Your task to perform on an android device: Toggle the flashlight Image 0: 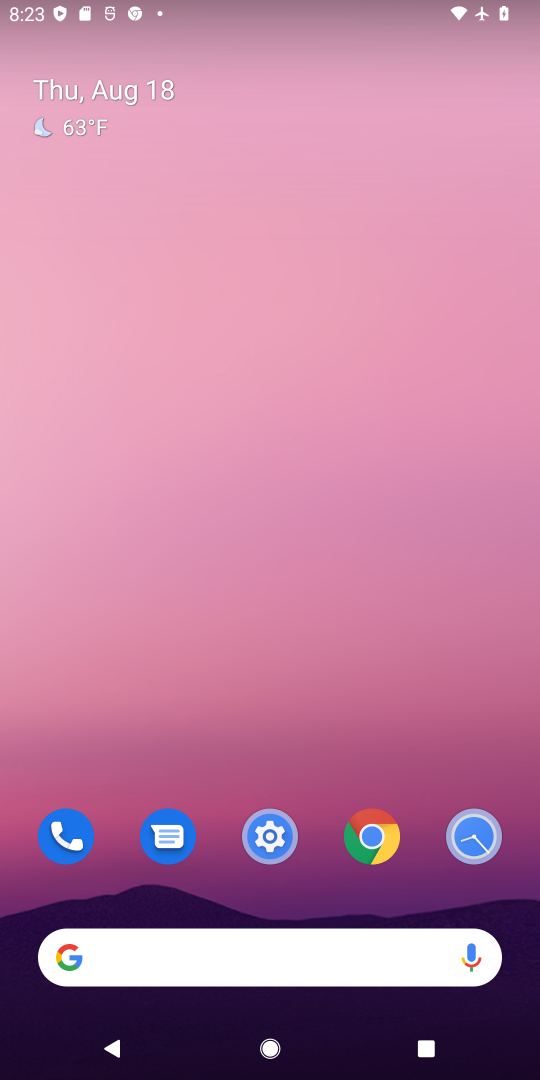
Step 0: drag from (335, 673) to (288, 0)
Your task to perform on an android device: Toggle the flashlight Image 1: 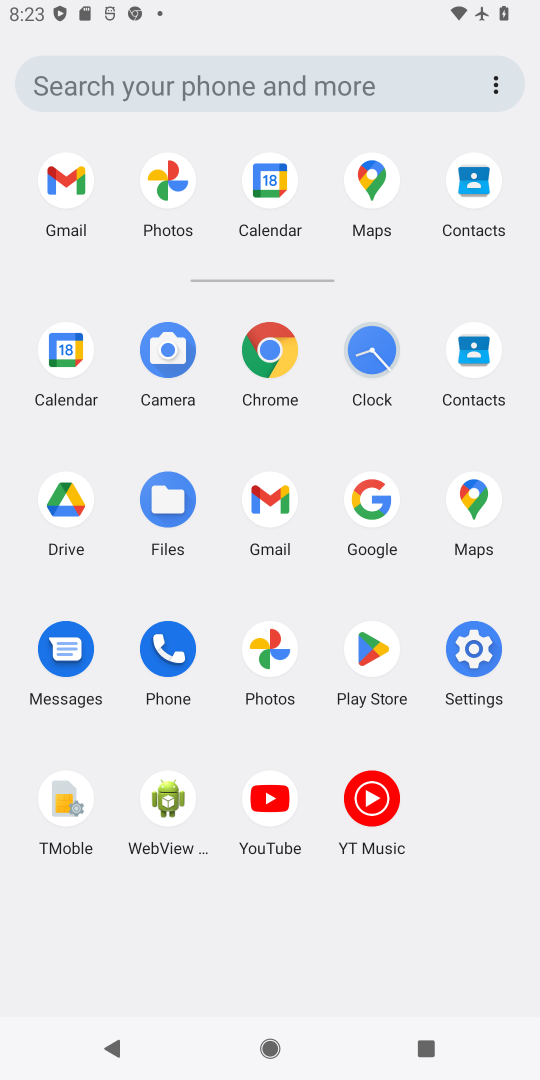
Step 1: click (473, 637)
Your task to perform on an android device: Toggle the flashlight Image 2: 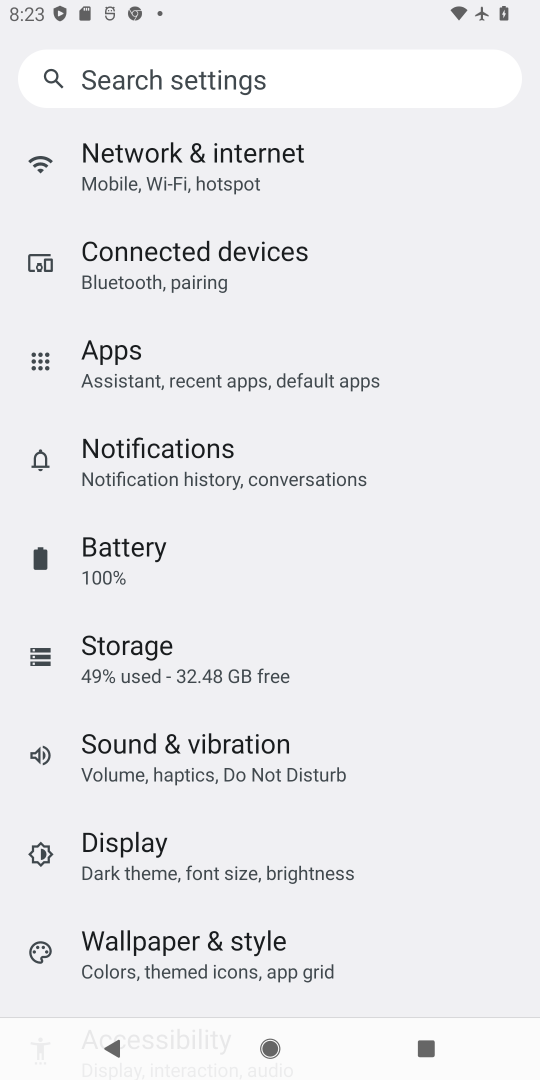
Step 2: drag from (372, 913) to (361, 376)
Your task to perform on an android device: Toggle the flashlight Image 3: 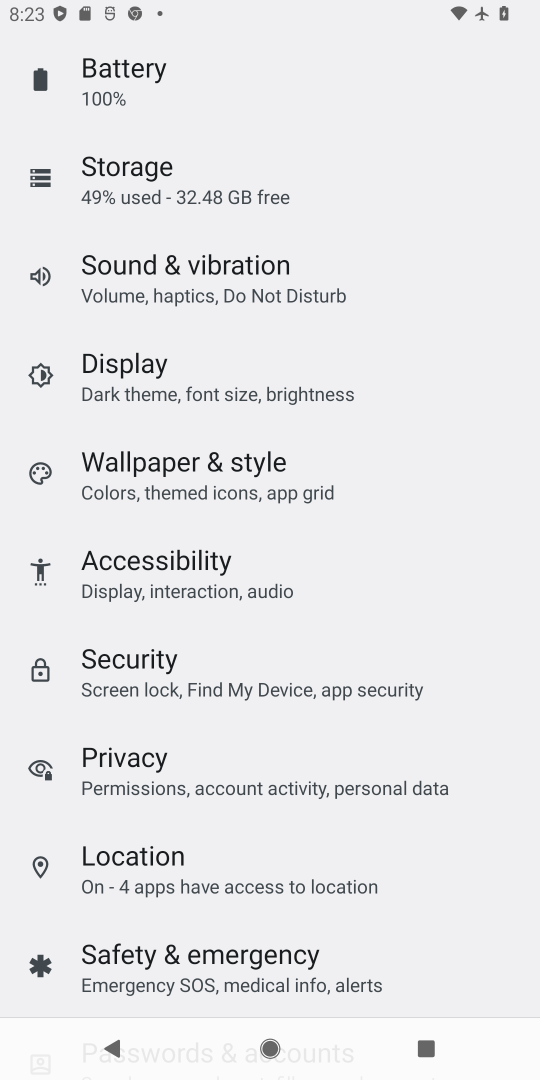
Step 3: click (160, 367)
Your task to perform on an android device: Toggle the flashlight Image 4: 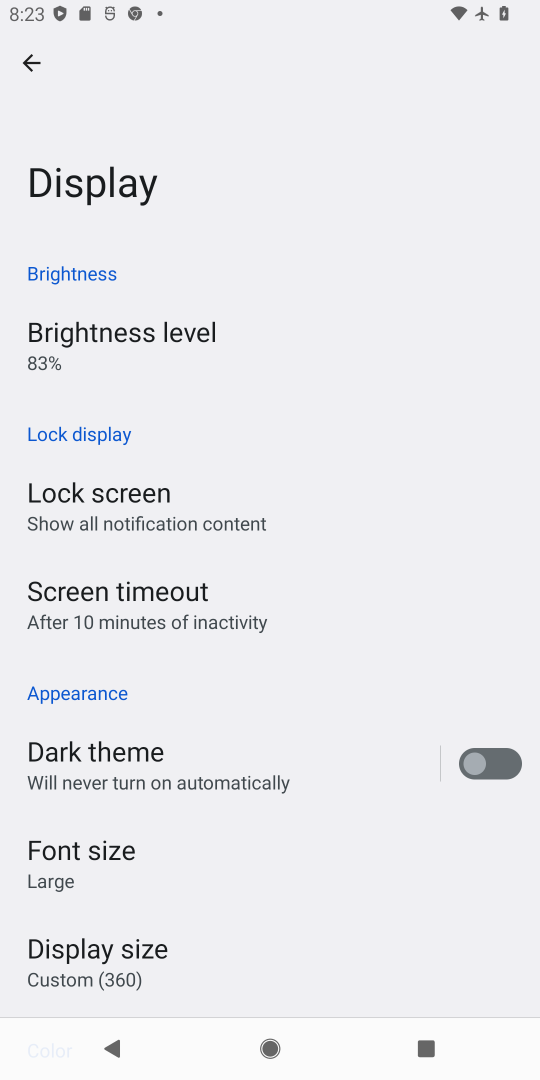
Step 4: click (166, 599)
Your task to perform on an android device: Toggle the flashlight Image 5: 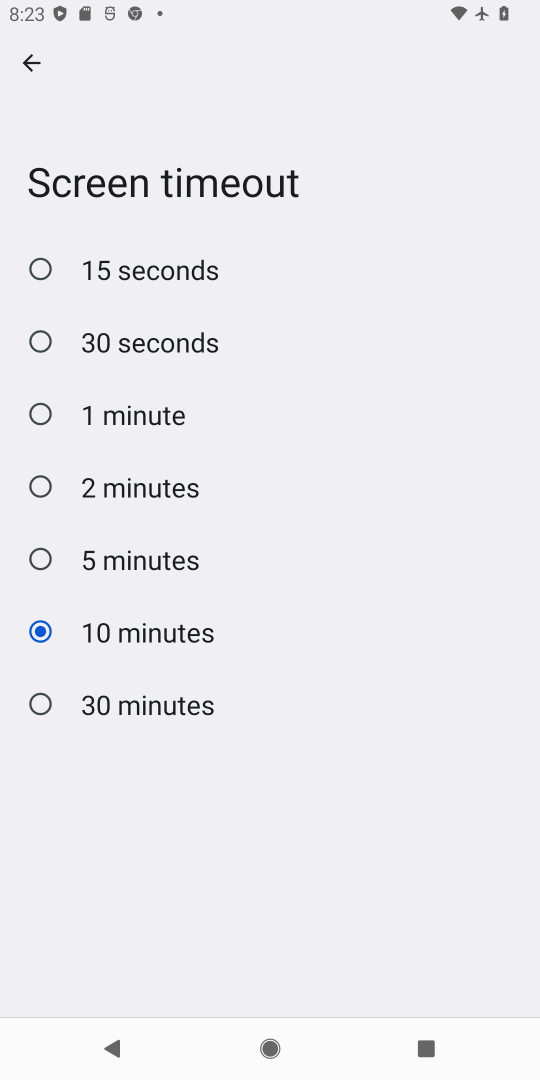
Step 5: click (15, 67)
Your task to perform on an android device: Toggle the flashlight Image 6: 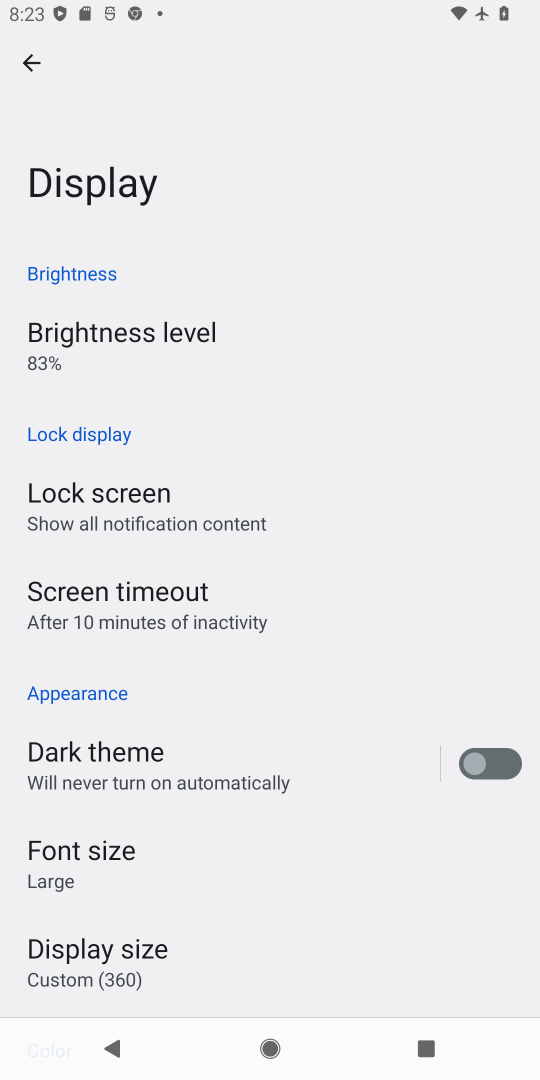
Step 6: task complete